Your task to perform on an android device: Check the weather Image 0: 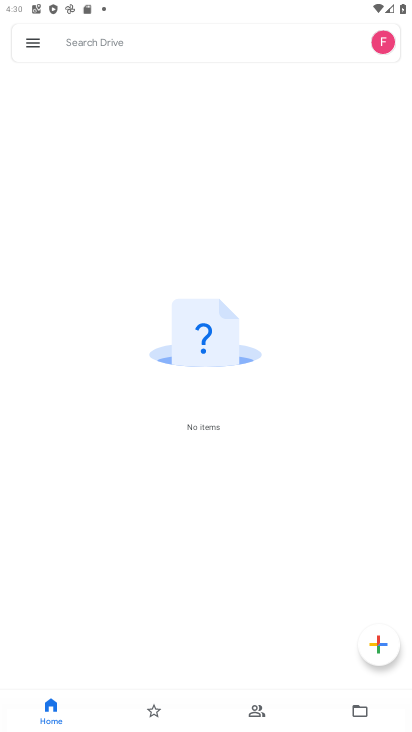
Step 0: press back button
Your task to perform on an android device: Check the weather Image 1: 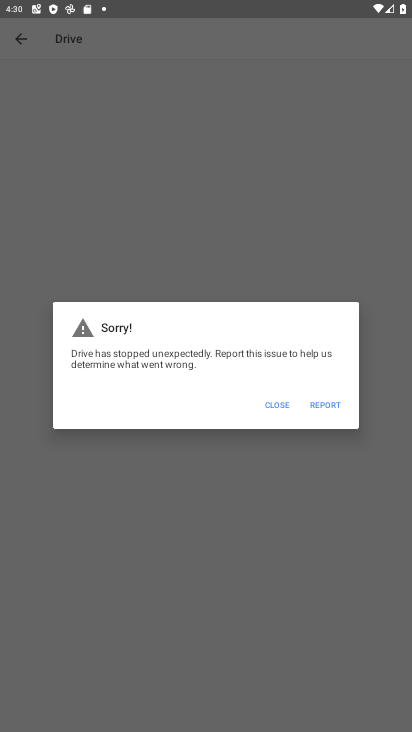
Step 1: press home button
Your task to perform on an android device: Check the weather Image 2: 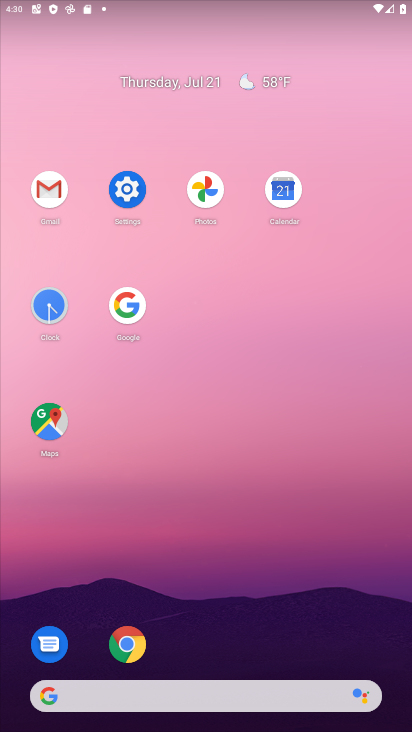
Step 2: click (129, 308)
Your task to perform on an android device: Check the weather Image 3: 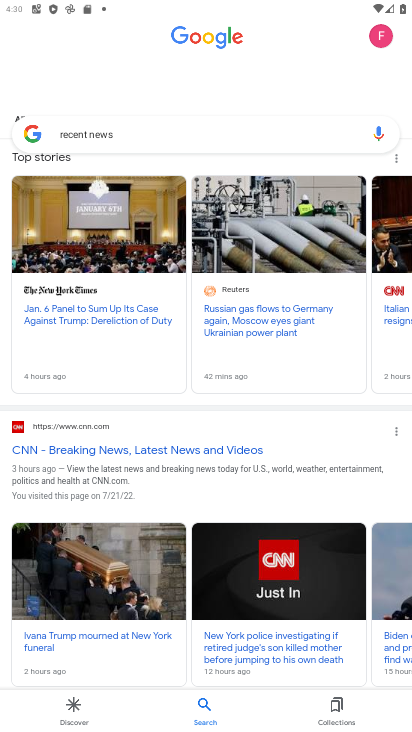
Step 3: click (164, 130)
Your task to perform on an android device: Check the weather Image 4: 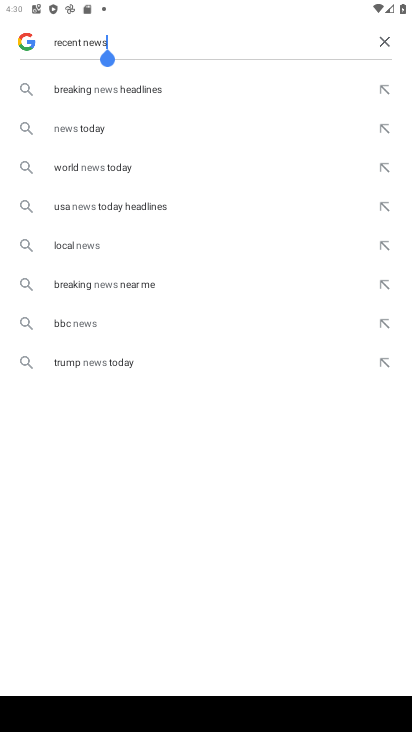
Step 4: click (390, 42)
Your task to perform on an android device: Check the weather Image 5: 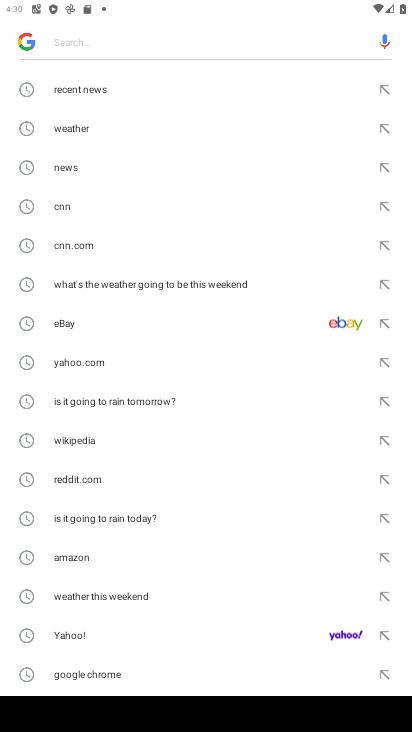
Step 5: click (110, 128)
Your task to perform on an android device: Check the weather Image 6: 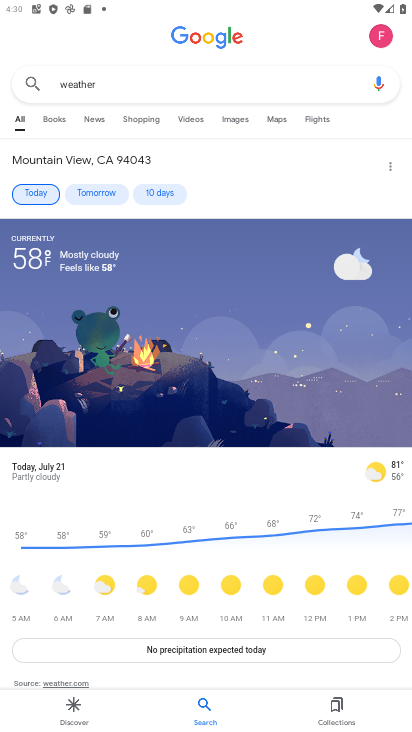
Step 6: task complete